Your task to perform on an android device: What's a good restaurant in San Jose? Image 0: 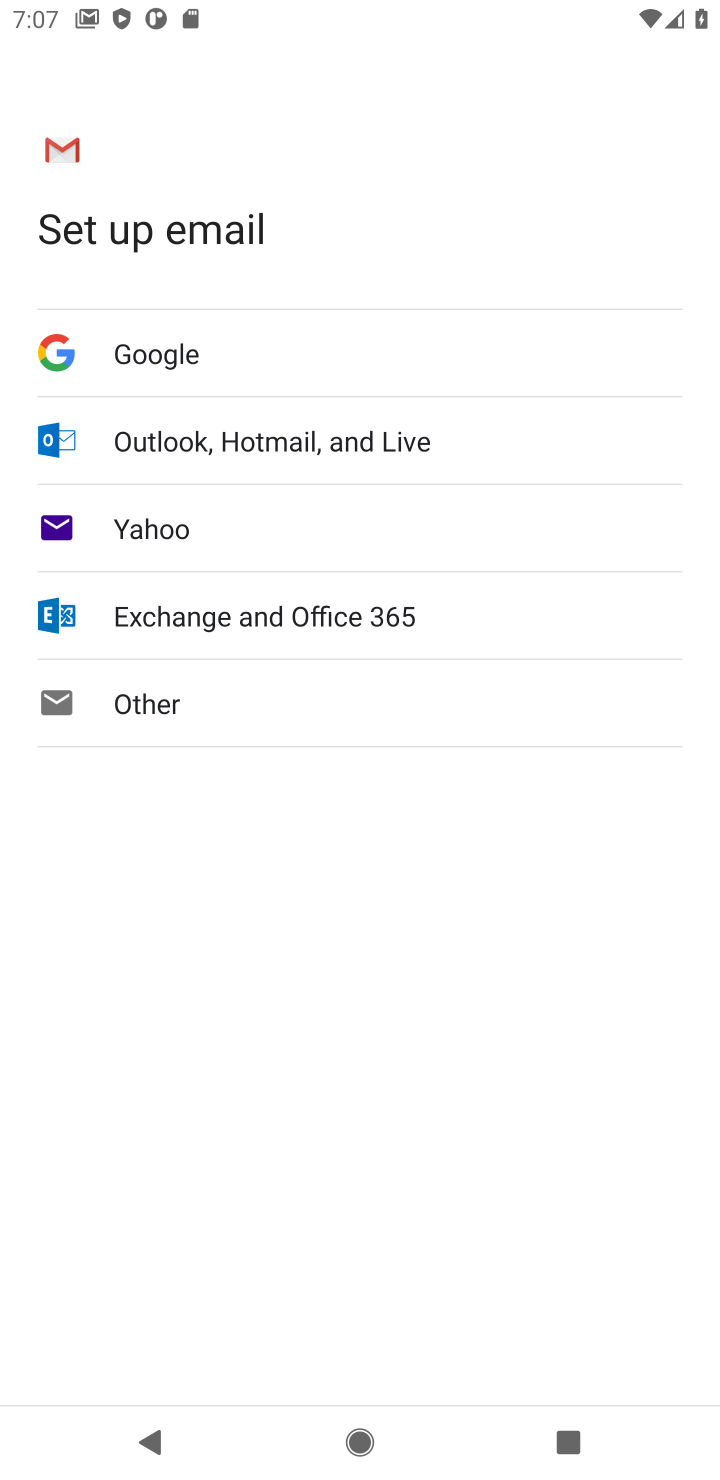
Step 0: press home button
Your task to perform on an android device: What's a good restaurant in San Jose? Image 1: 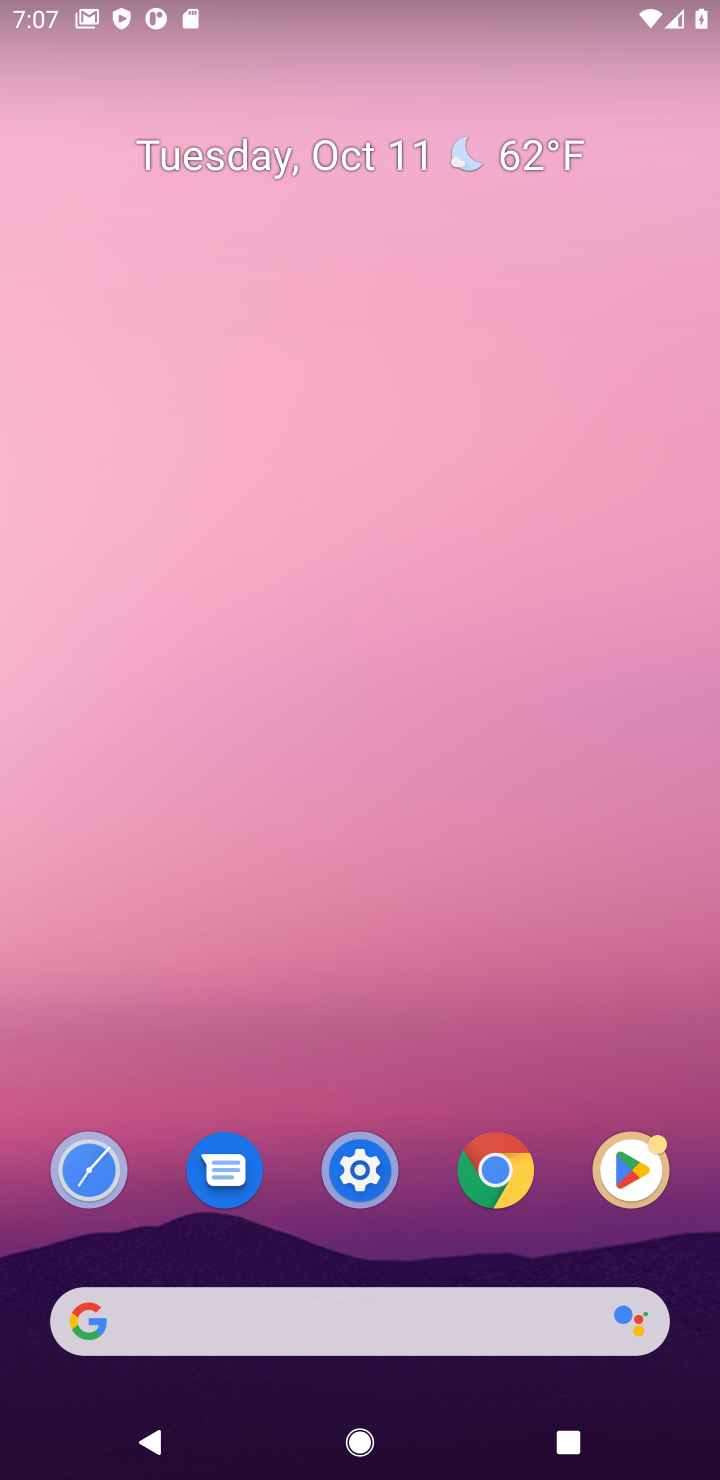
Step 1: drag from (347, 1247) to (403, 50)
Your task to perform on an android device: What's a good restaurant in San Jose? Image 2: 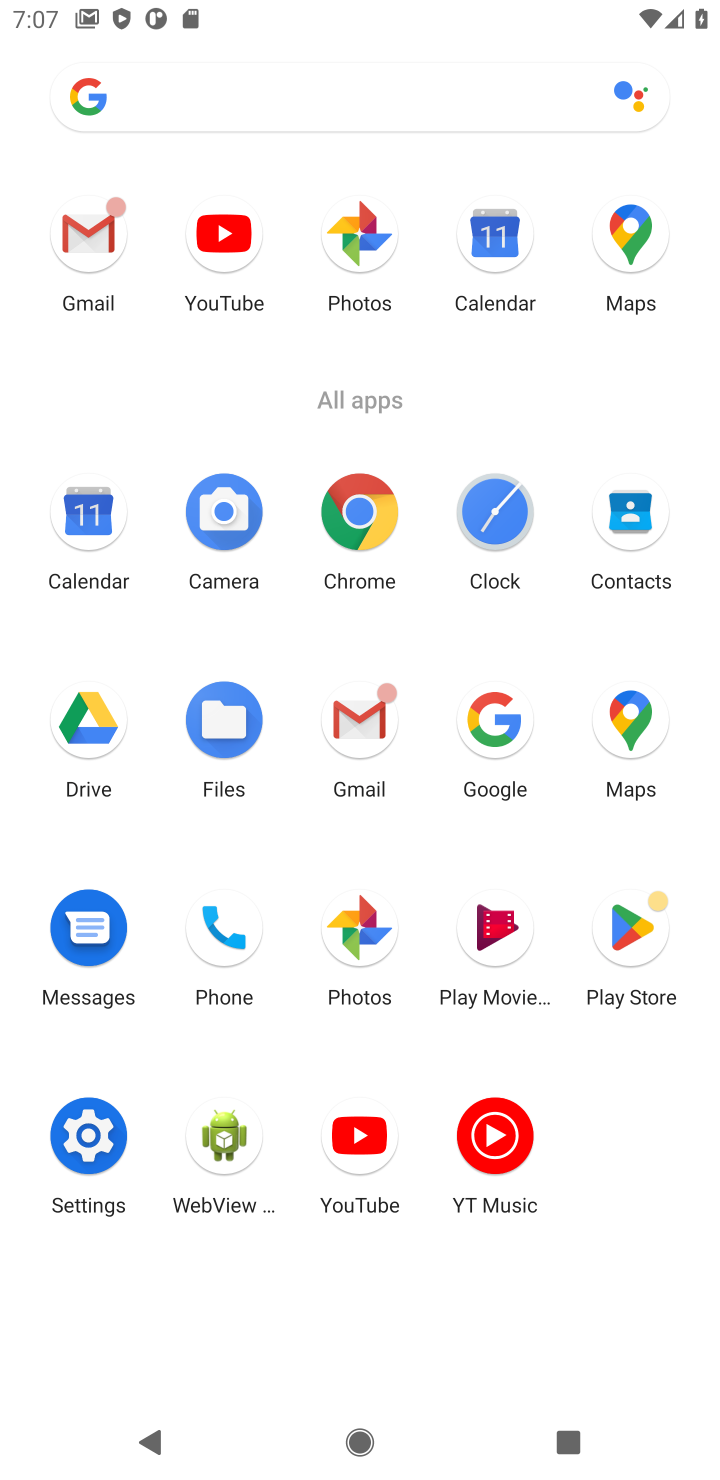
Step 2: click (478, 704)
Your task to perform on an android device: What's a good restaurant in San Jose? Image 3: 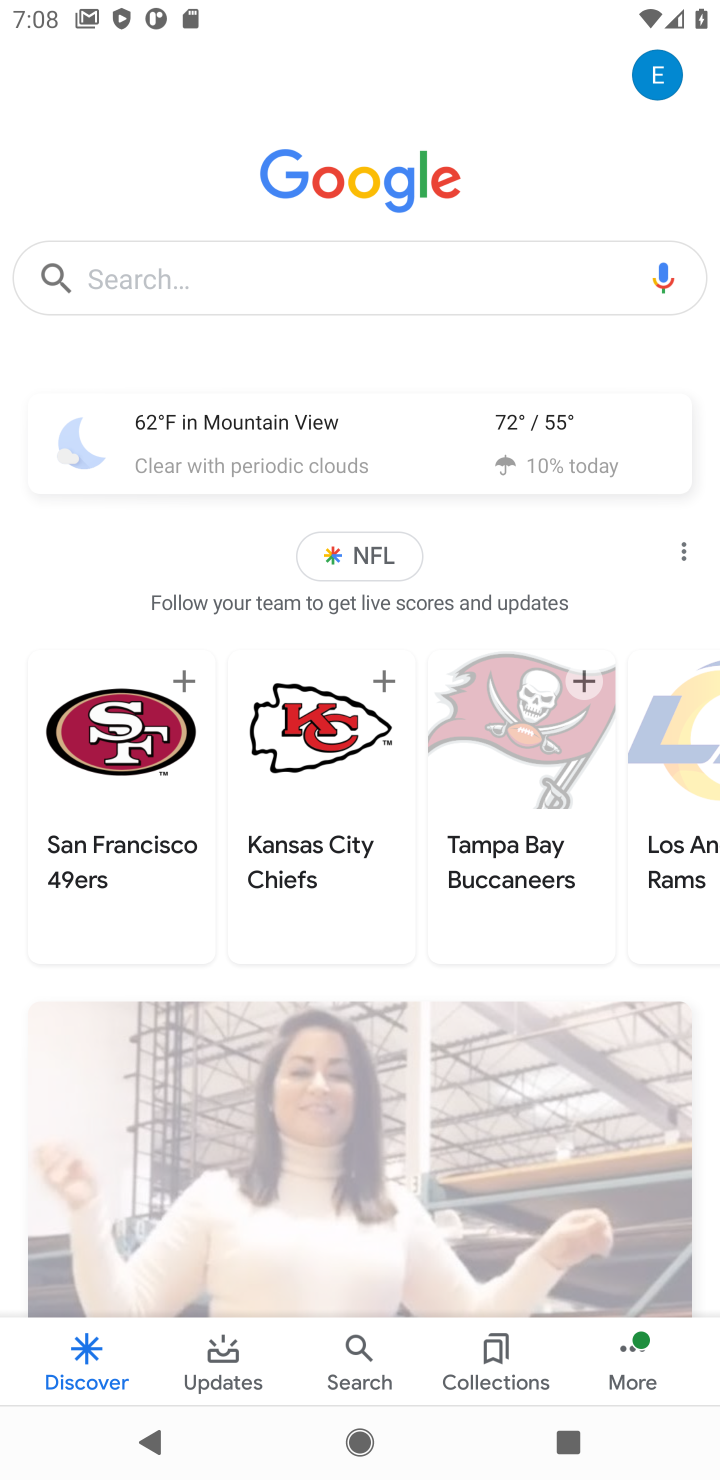
Step 3: click (340, 272)
Your task to perform on an android device: What's a good restaurant in San Jose? Image 4: 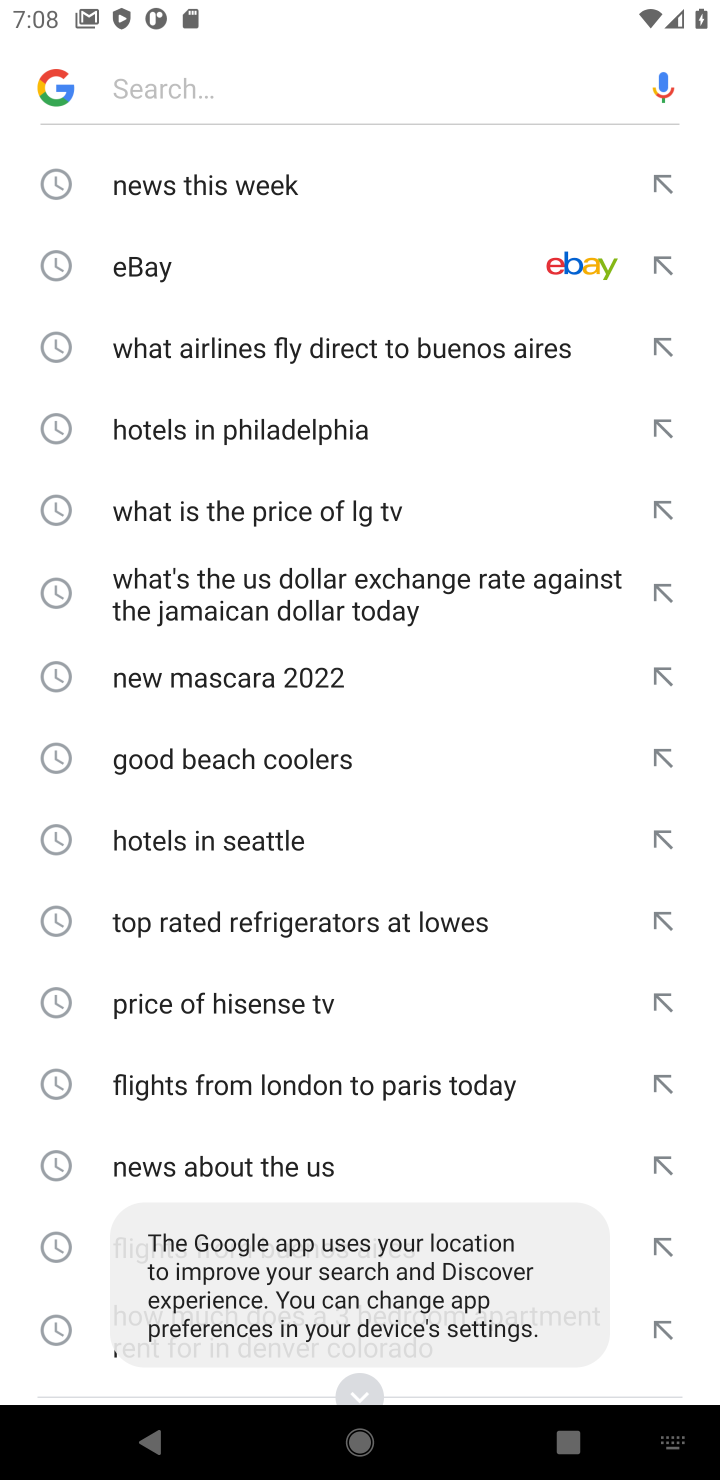
Step 4: type "What's a good restaurant in San Jose? "
Your task to perform on an android device: What's a good restaurant in San Jose? Image 5: 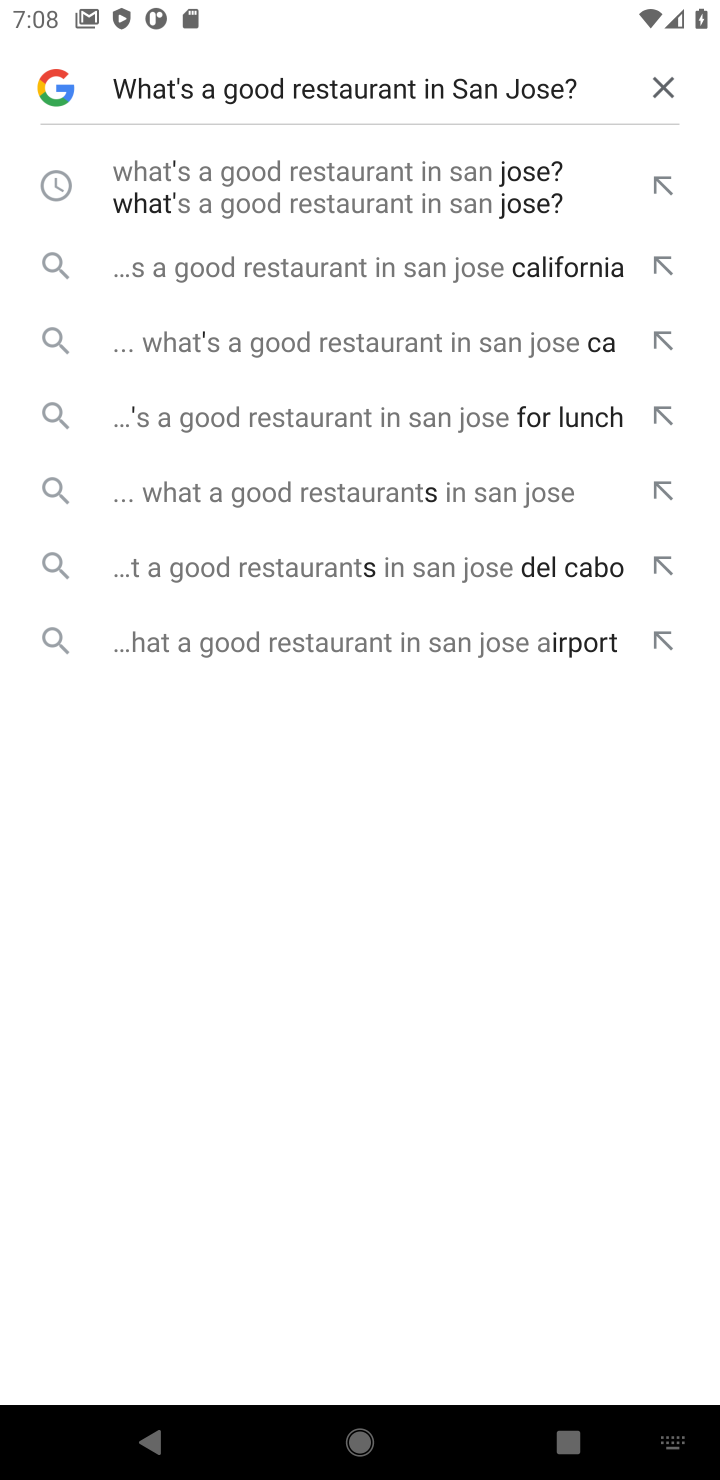
Step 5: click (237, 182)
Your task to perform on an android device: What's a good restaurant in San Jose? Image 6: 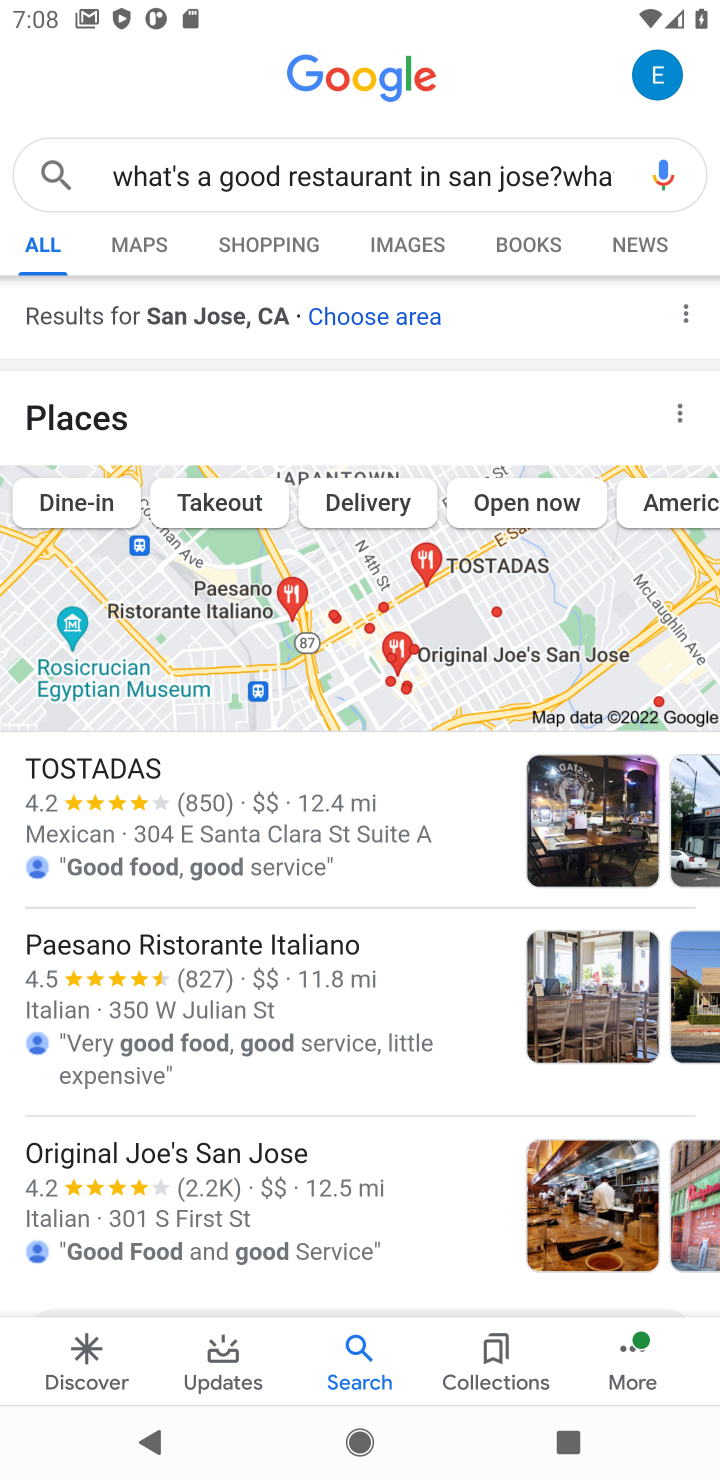
Step 6: task complete